Your task to perform on an android device: Go to notification settings Image 0: 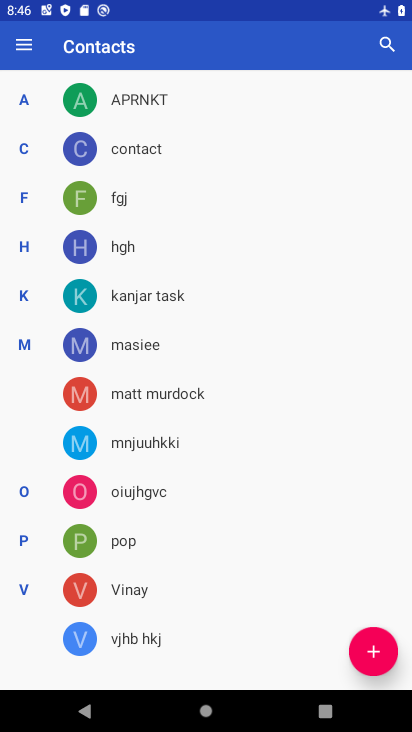
Step 0: press home button
Your task to perform on an android device: Go to notification settings Image 1: 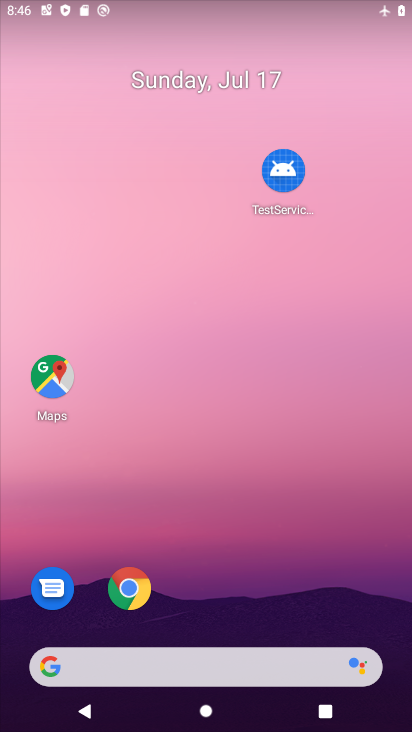
Step 1: drag from (171, 636) to (280, 173)
Your task to perform on an android device: Go to notification settings Image 2: 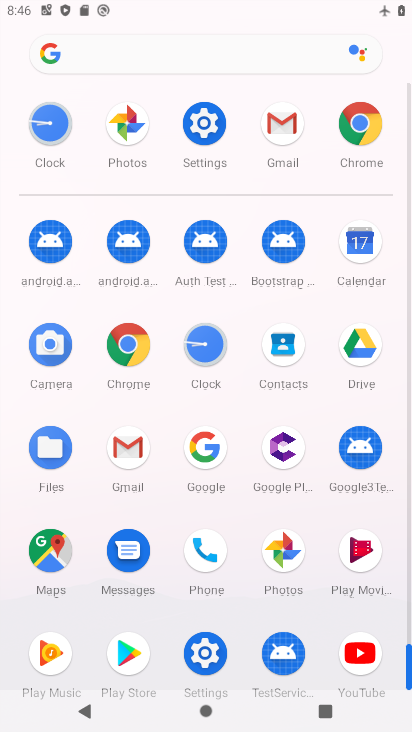
Step 2: click (208, 152)
Your task to perform on an android device: Go to notification settings Image 3: 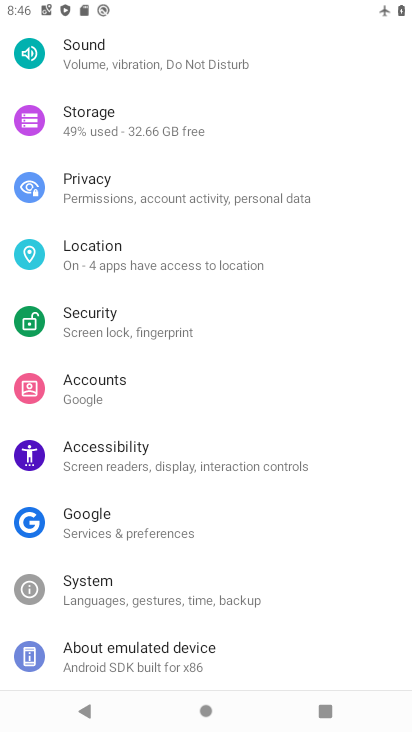
Step 3: drag from (179, 171) to (159, 686)
Your task to perform on an android device: Go to notification settings Image 4: 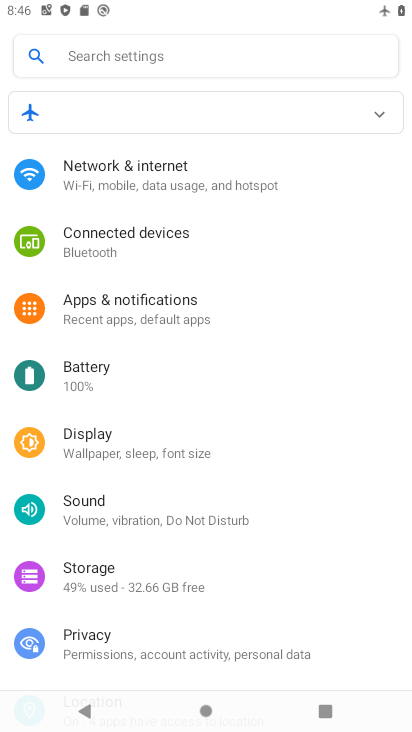
Step 4: click (152, 317)
Your task to perform on an android device: Go to notification settings Image 5: 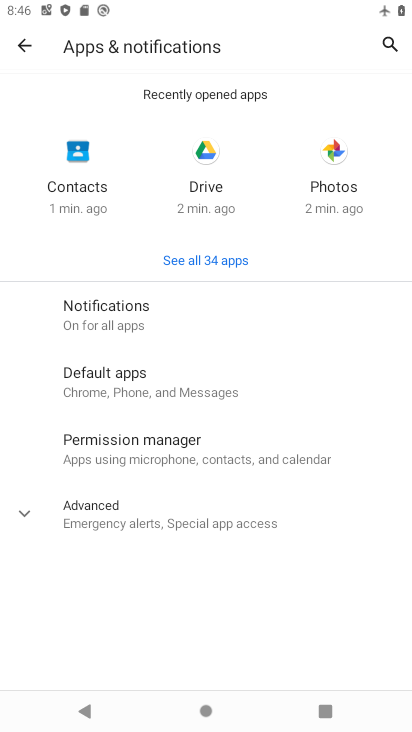
Step 5: click (146, 317)
Your task to perform on an android device: Go to notification settings Image 6: 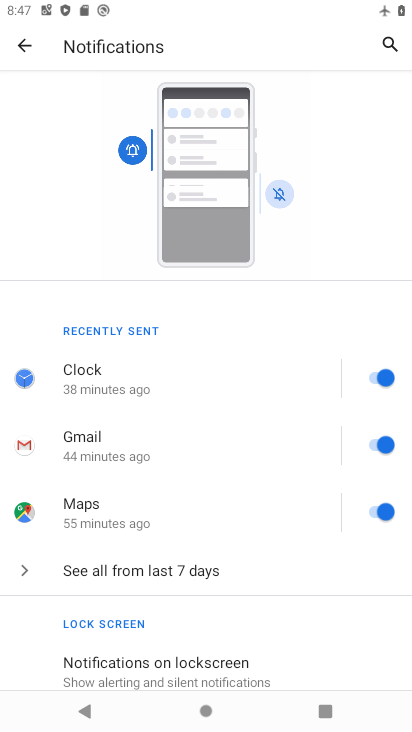
Step 6: task complete